Your task to perform on an android device: uninstall "Viber Messenger" Image 0: 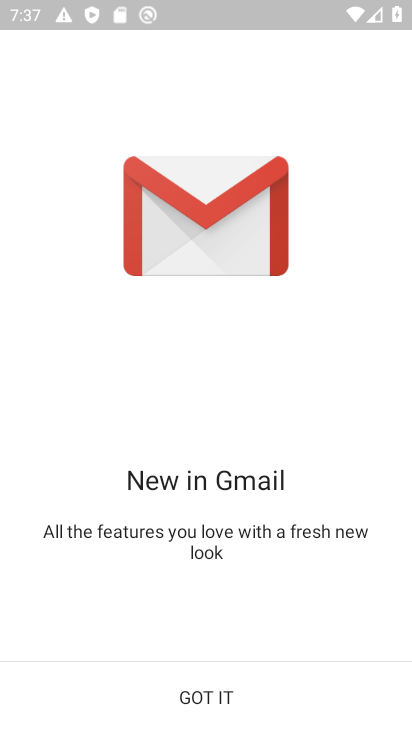
Step 0: click (231, 694)
Your task to perform on an android device: uninstall "Viber Messenger" Image 1: 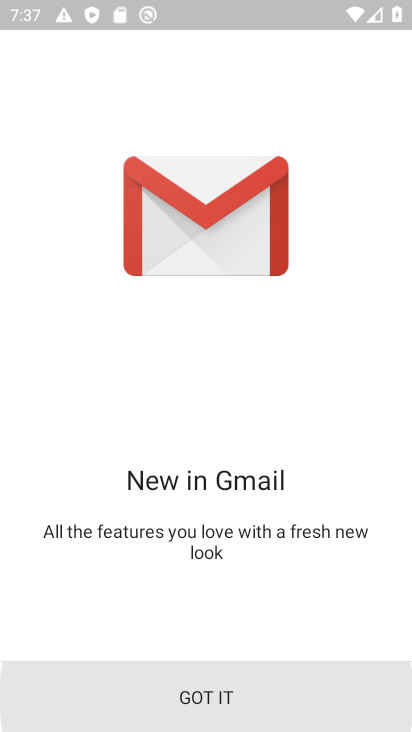
Step 1: click (235, 700)
Your task to perform on an android device: uninstall "Viber Messenger" Image 2: 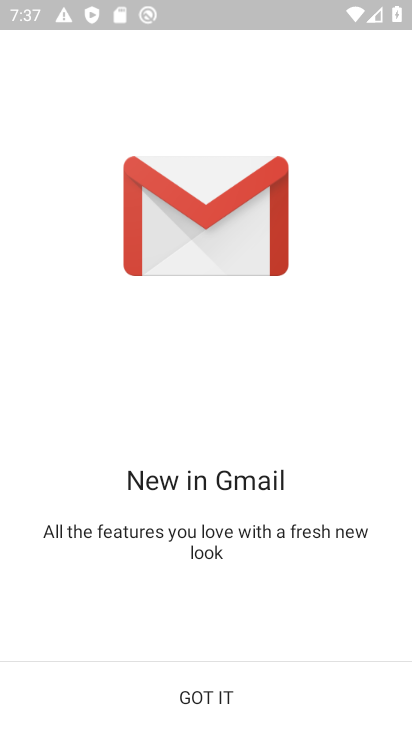
Step 2: click (235, 700)
Your task to perform on an android device: uninstall "Viber Messenger" Image 3: 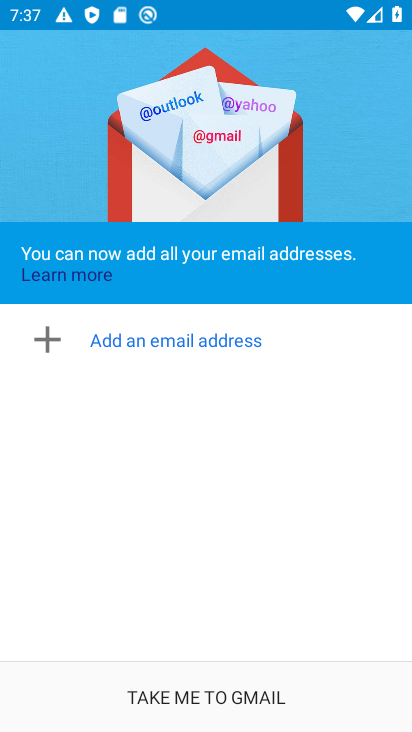
Step 3: press back button
Your task to perform on an android device: uninstall "Viber Messenger" Image 4: 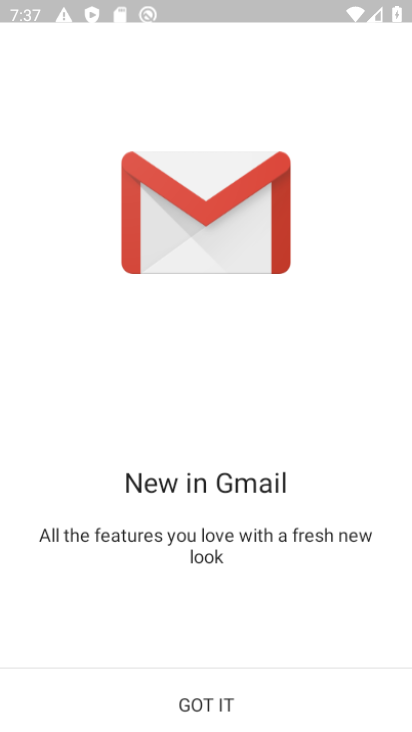
Step 4: press back button
Your task to perform on an android device: uninstall "Viber Messenger" Image 5: 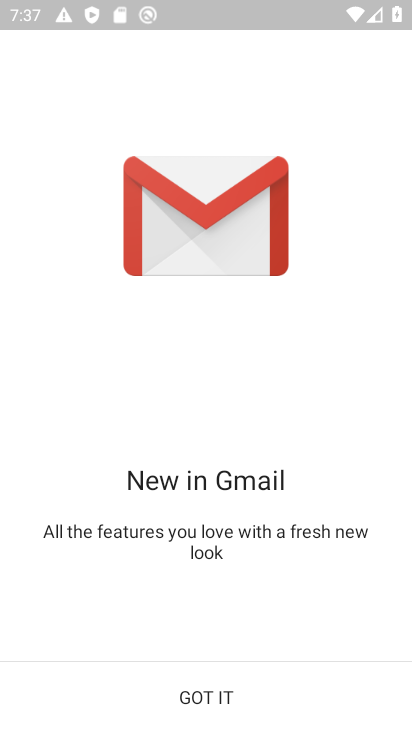
Step 5: press back button
Your task to perform on an android device: uninstall "Viber Messenger" Image 6: 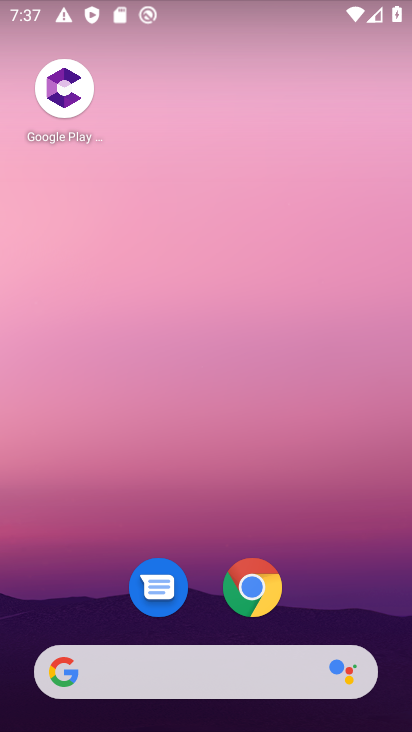
Step 6: drag from (235, 655) to (168, 39)
Your task to perform on an android device: uninstall "Viber Messenger" Image 7: 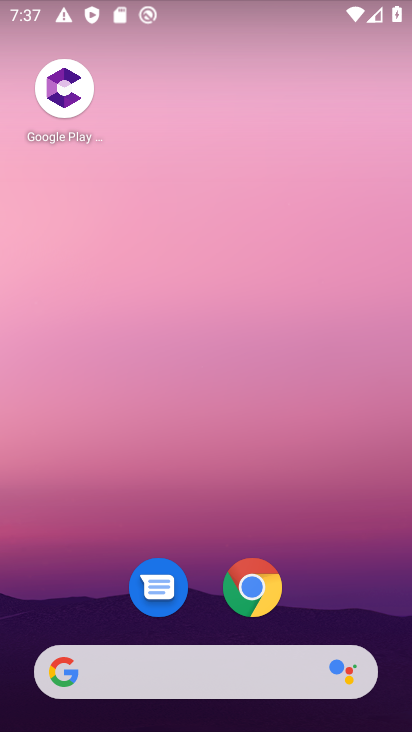
Step 7: drag from (218, 332) to (173, 36)
Your task to perform on an android device: uninstall "Viber Messenger" Image 8: 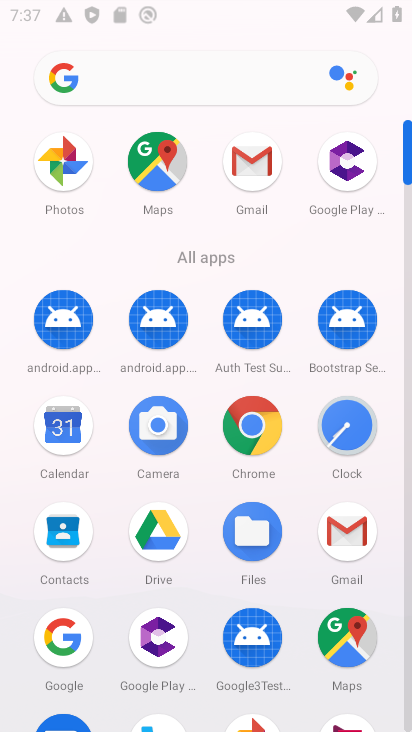
Step 8: drag from (169, 469) to (166, 67)
Your task to perform on an android device: uninstall "Viber Messenger" Image 9: 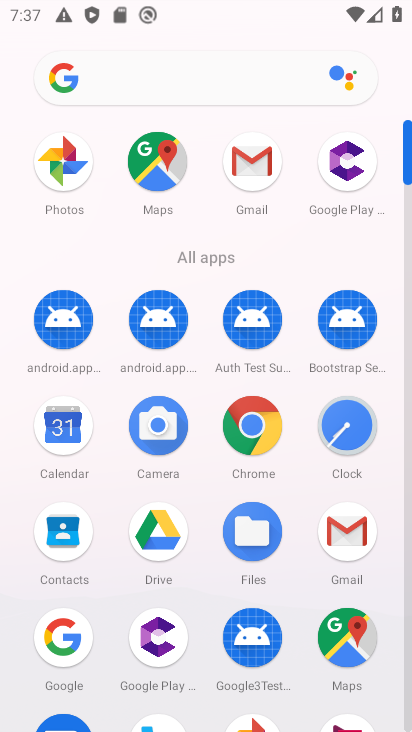
Step 9: drag from (185, 562) to (177, 139)
Your task to perform on an android device: uninstall "Viber Messenger" Image 10: 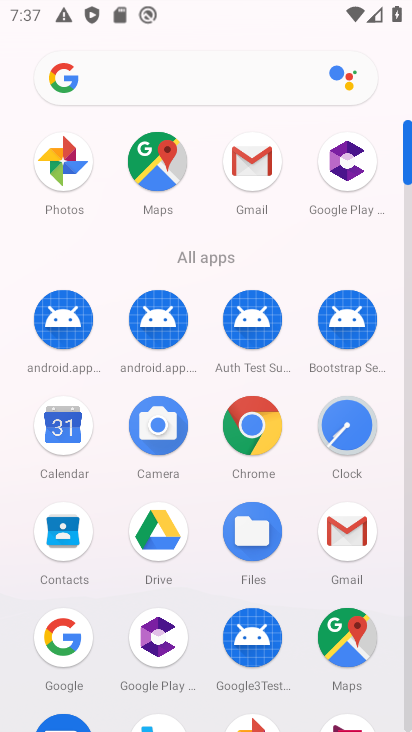
Step 10: drag from (217, 505) to (164, 218)
Your task to perform on an android device: uninstall "Viber Messenger" Image 11: 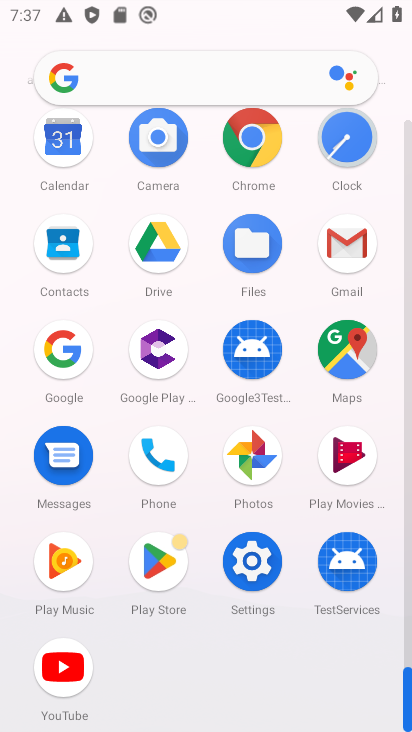
Step 11: click (162, 555)
Your task to perform on an android device: uninstall "Viber Messenger" Image 12: 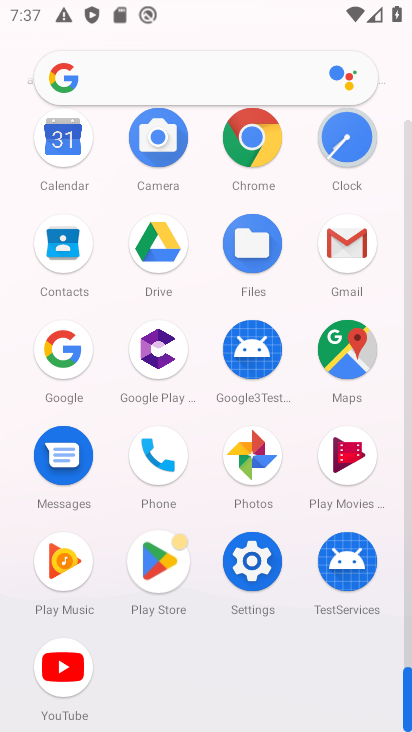
Step 12: click (158, 558)
Your task to perform on an android device: uninstall "Viber Messenger" Image 13: 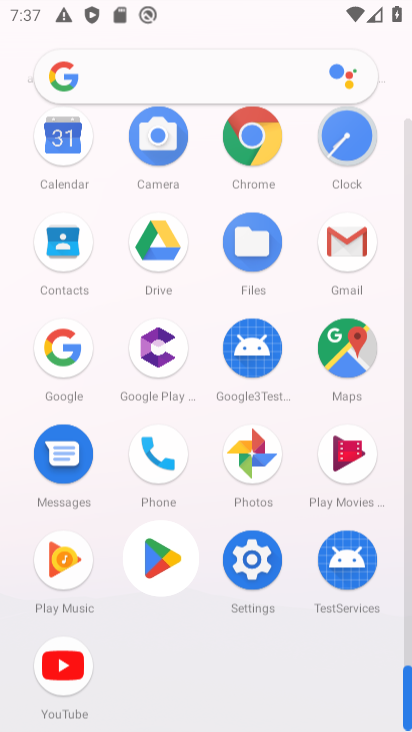
Step 13: click (159, 574)
Your task to perform on an android device: uninstall "Viber Messenger" Image 14: 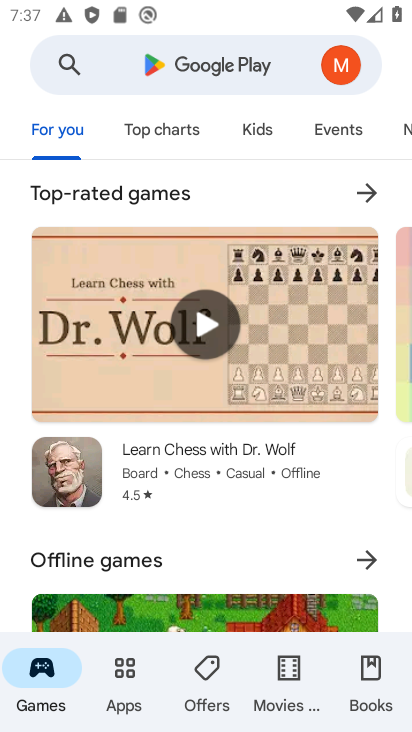
Step 14: click (178, 66)
Your task to perform on an android device: uninstall "Viber Messenger" Image 15: 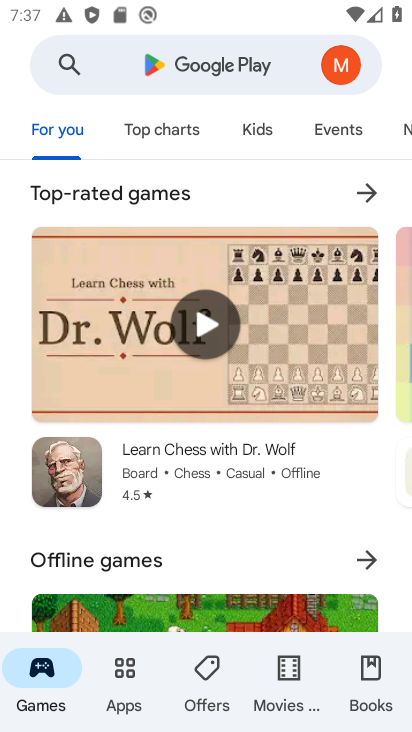
Step 15: click (178, 66)
Your task to perform on an android device: uninstall "Viber Messenger" Image 16: 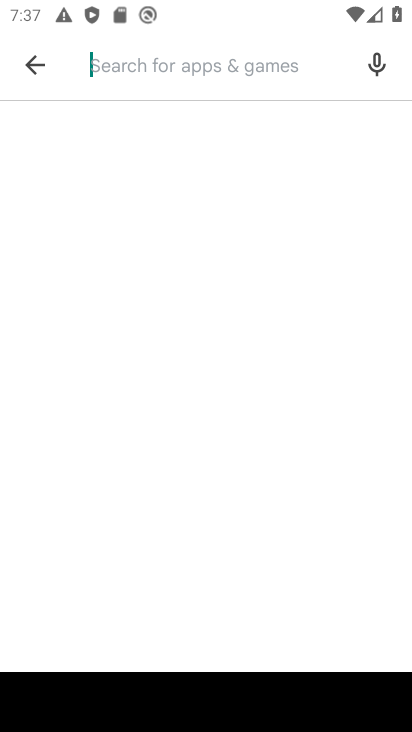
Step 16: type "viber messenger"
Your task to perform on an android device: uninstall "Viber Messenger" Image 17: 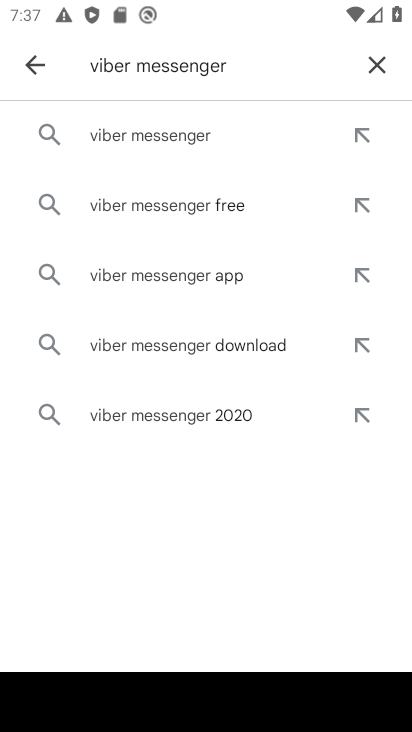
Step 17: click (168, 133)
Your task to perform on an android device: uninstall "Viber Messenger" Image 18: 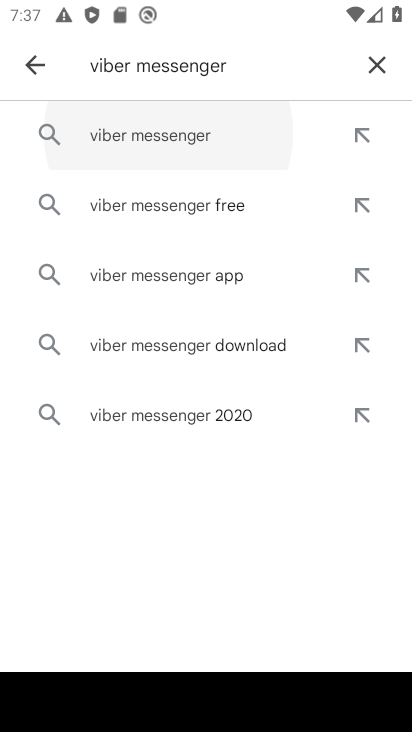
Step 18: click (167, 133)
Your task to perform on an android device: uninstall "Viber Messenger" Image 19: 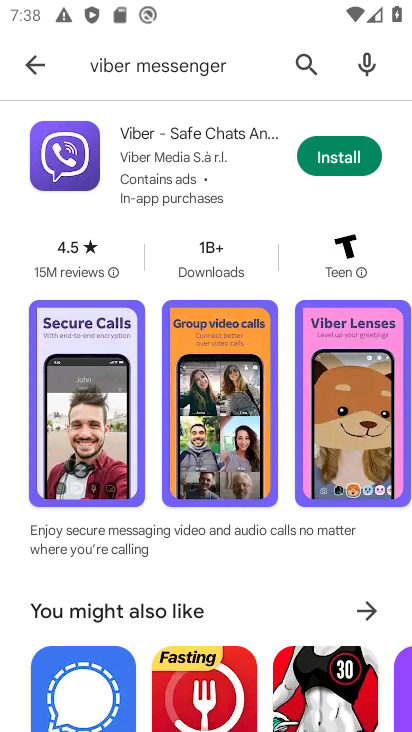
Step 19: task complete